Your task to perform on an android device: check out phone information Image 0: 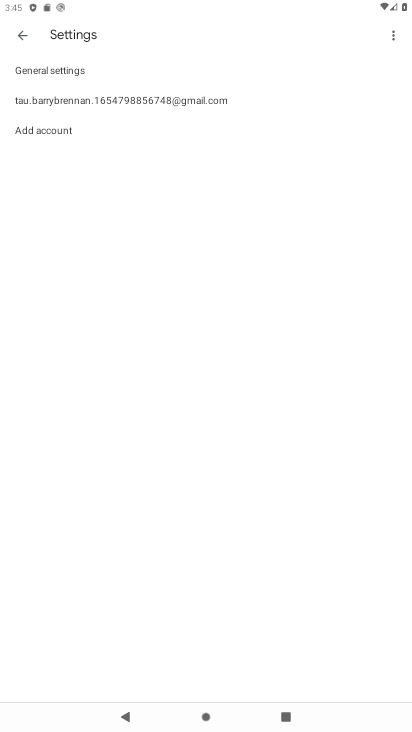
Step 0: press home button
Your task to perform on an android device: check out phone information Image 1: 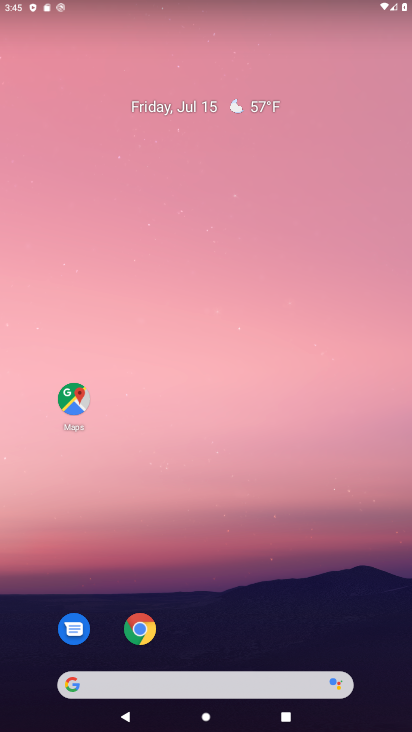
Step 1: drag from (274, 468) to (337, 5)
Your task to perform on an android device: check out phone information Image 2: 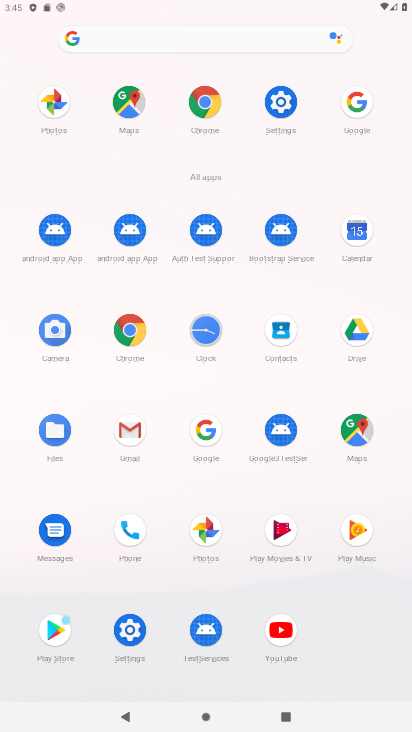
Step 2: click (302, 131)
Your task to perform on an android device: check out phone information Image 3: 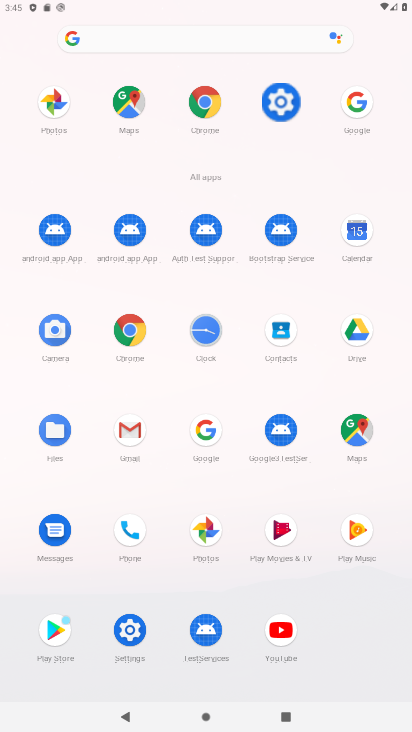
Step 3: click (265, 90)
Your task to perform on an android device: check out phone information Image 4: 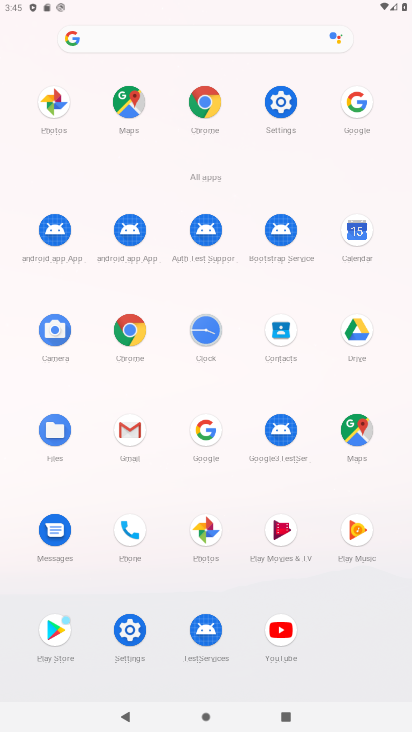
Step 4: click (271, 99)
Your task to perform on an android device: check out phone information Image 5: 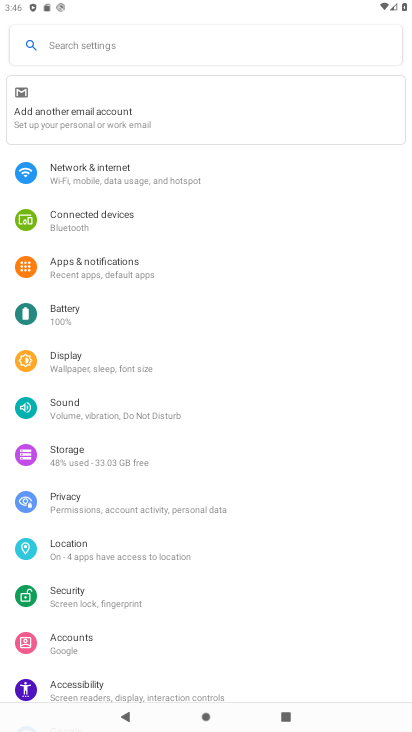
Step 5: drag from (134, 657) to (119, 257)
Your task to perform on an android device: check out phone information Image 6: 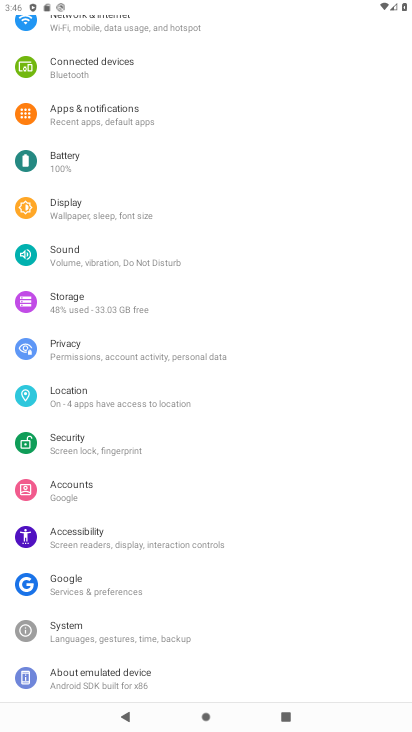
Step 6: click (96, 687)
Your task to perform on an android device: check out phone information Image 7: 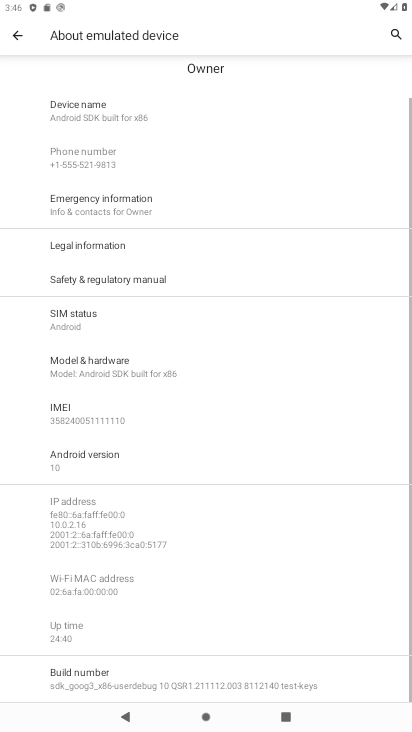
Step 7: task complete